Your task to perform on an android device: open sync settings in chrome Image 0: 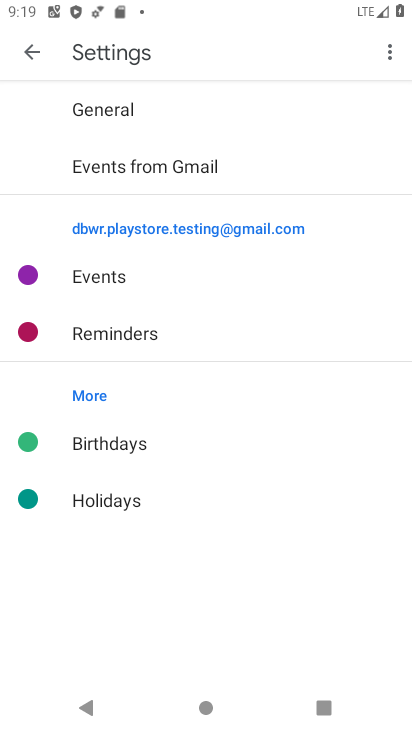
Step 0: click (41, 56)
Your task to perform on an android device: open sync settings in chrome Image 1: 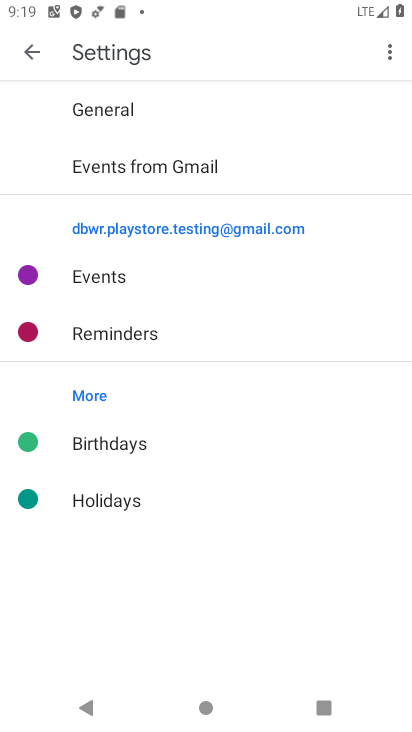
Step 1: press home button
Your task to perform on an android device: open sync settings in chrome Image 2: 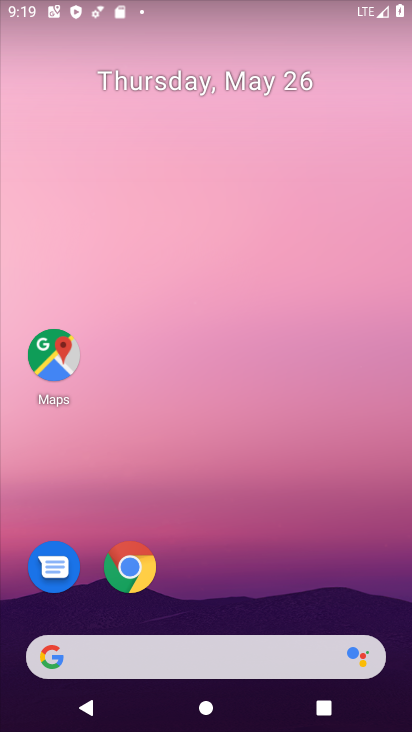
Step 2: click (129, 566)
Your task to perform on an android device: open sync settings in chrome Image 3: 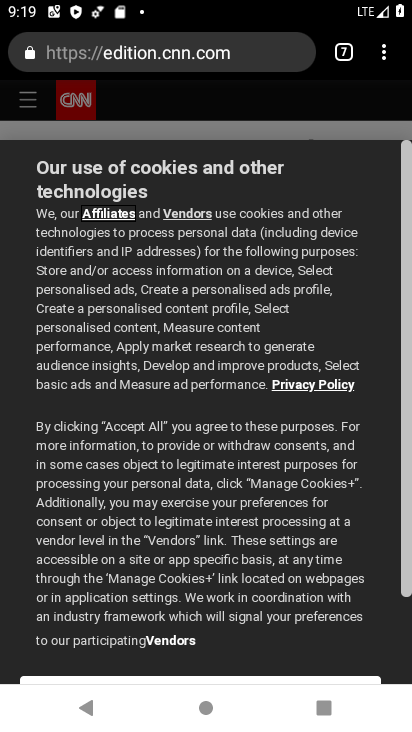
Step 3: click (389, 52)
Your task to perform on an android device: open sync settings in chrome Image 4: 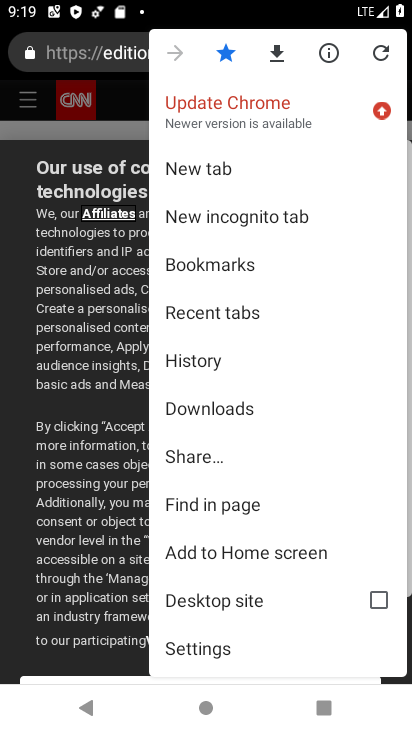
Step 4: click (265, 658)
Your task to perform on an android device: open sync settings in chrome Image 5: 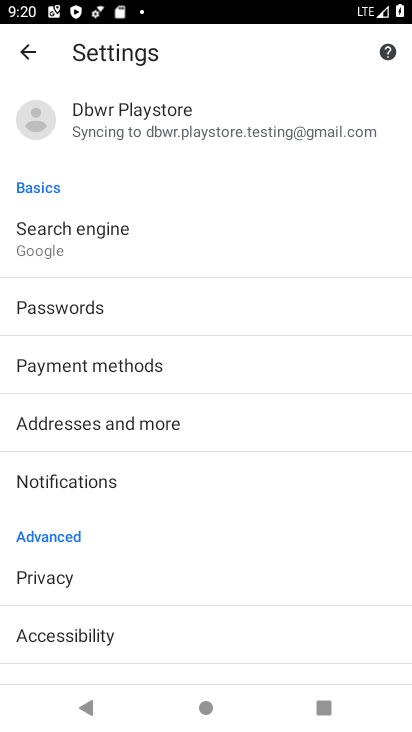
Step 5: click (244, 120)
Your task to perform on an android device: open sync settings in chrome Image 6: 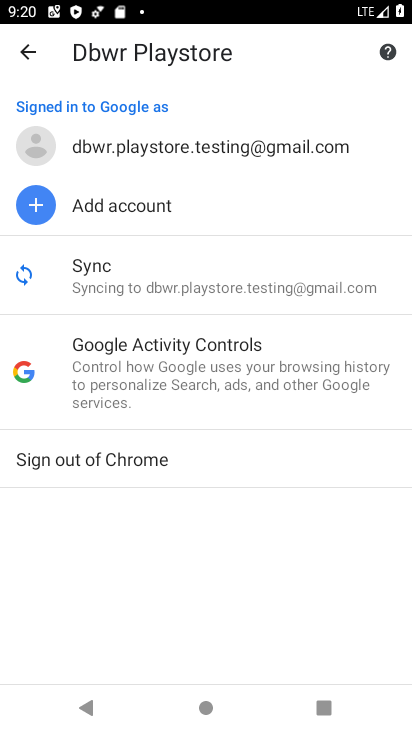
Step 6: task complete